Your task to perform on an android device: move an email to a new category in the gmail app Image 0: 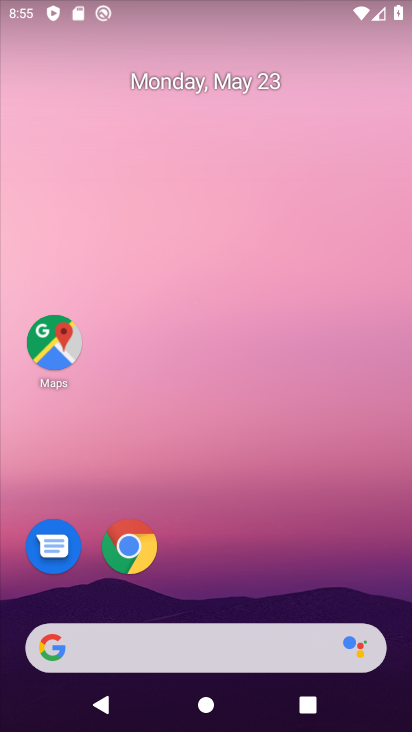
Step 0: drag from (293, 532) to (235, 134)
Your task to perform on an android device: move an email to a new category in the gmail app Image 1: 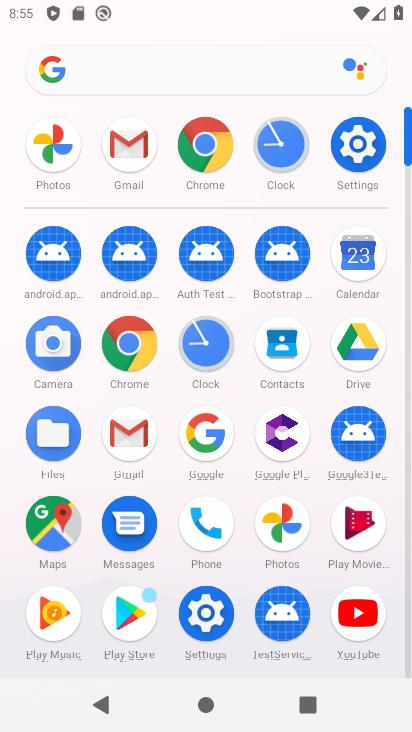
Step 1: click (141, 428)
Your task to perform on an android device: move an email to a new category in the gmail app Image 2: 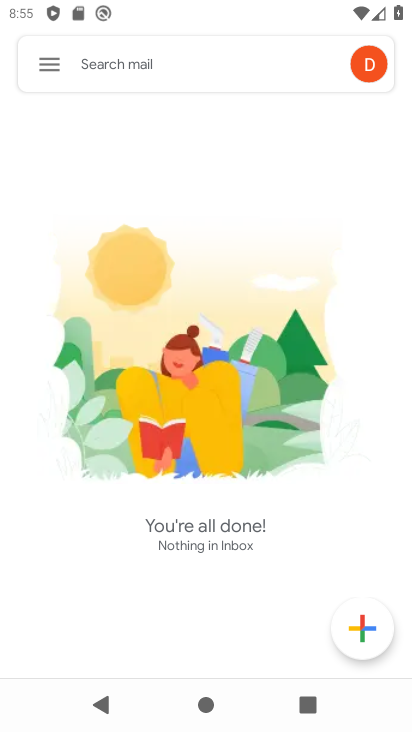
Step 2: click (59, 65)
Your task to perform on an android device: move an email to a new category in the gmail app Image 3: 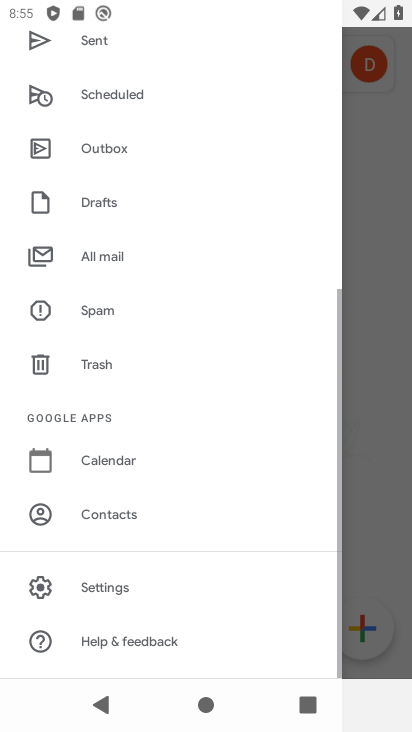
Step 3: drag from (102, 449) to (187, 223)
Your task to perform on an android device: move an email to a new category in the gmail app Image 4: 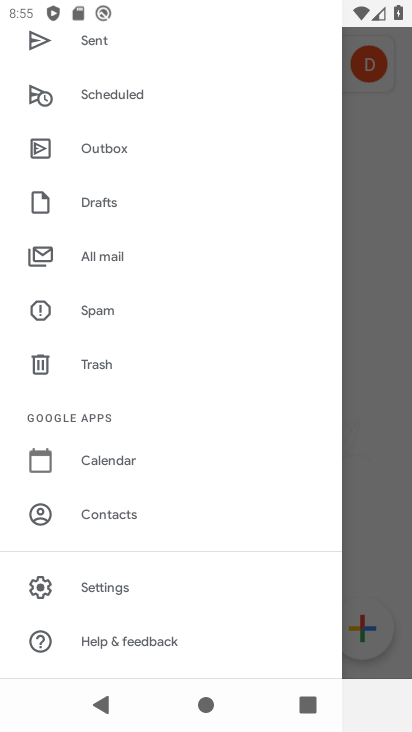
Step 4: drag from (157, 201) to (270, 204)
Your task to perform on an android device: move an email to a new category in the gmail app Image 5: 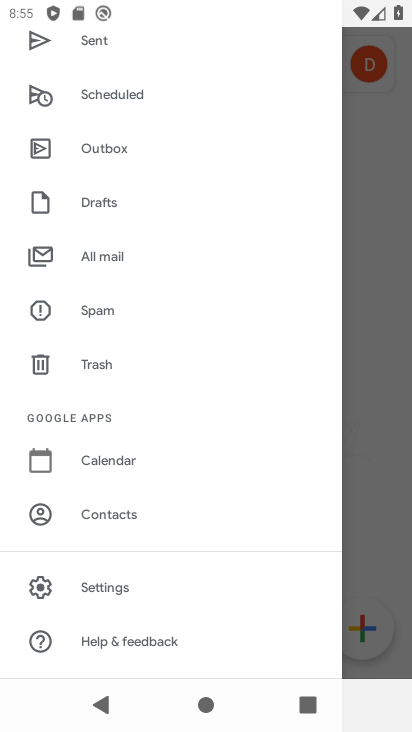
Step 5: drag from (172, 272) to (192, 407)
Your task to perform on an android device: move an email to a new category in the gmail app Image 6: 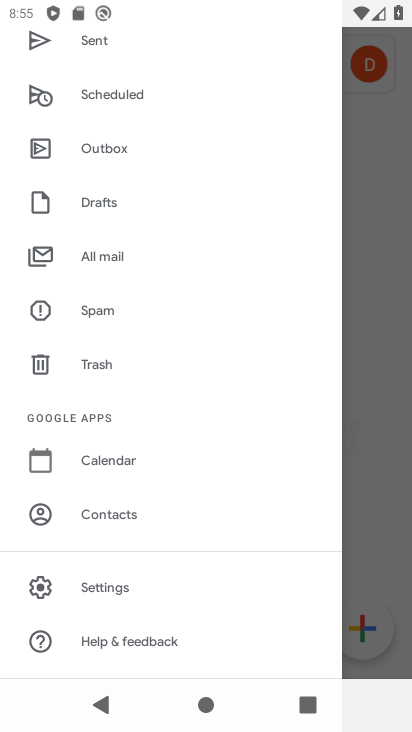
Step 6: drag from (63, 162) to (58, 492)
Your task to perform on an android device: move an email to a new category in the gmail app Image 7: 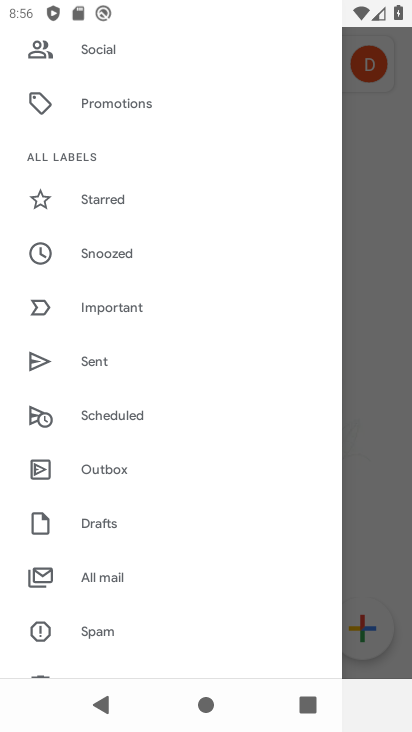
Step 7: drag from (106, 555) to (142, 363)
Your task to perform on an android device: move an email to a new category in the gmail app Image 8: 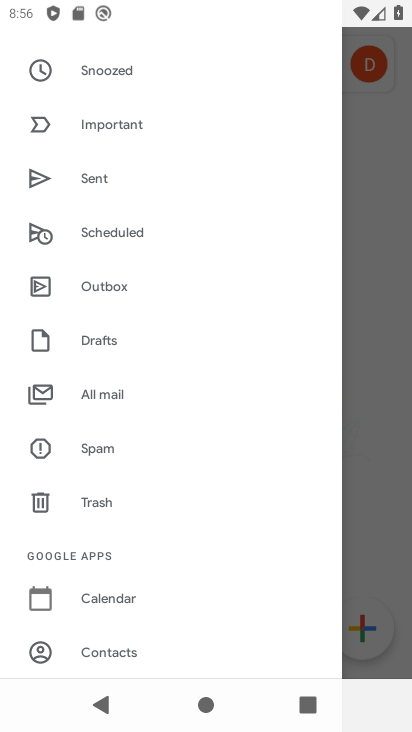
Step 8: click (119, 396)
Your task to perform on an android device: move an email to a new category in the gmail app Image 9: 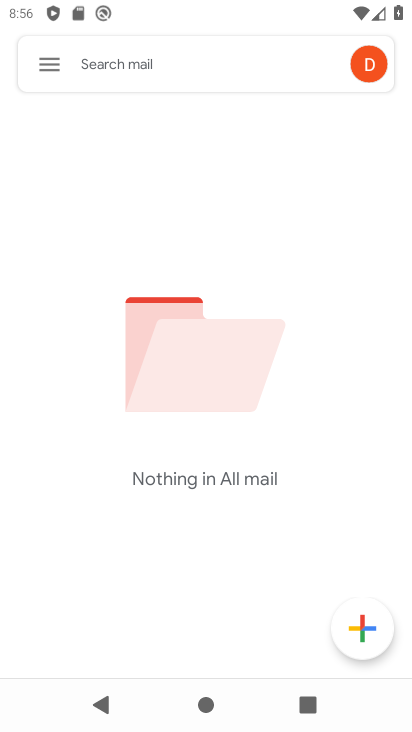
Step 9: task complete